Your task to perform on an android device: Go to accessibility settings Image 0: 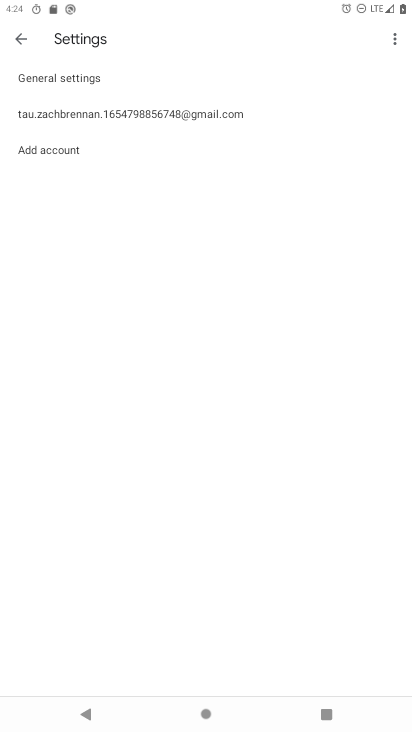
Step 0: press home button
Your task to perform on an android device: Go to accessibility settings Image 1: 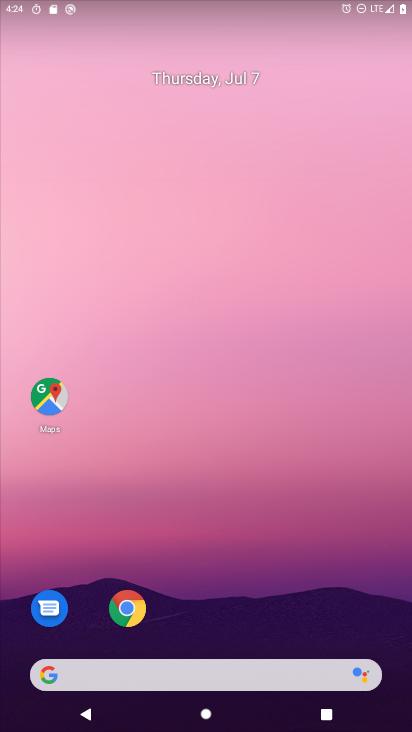
Step 1: drag from (239, 601) to (217, 117)
Your task to perform on an android device: Go to accessibility settings Image 2: 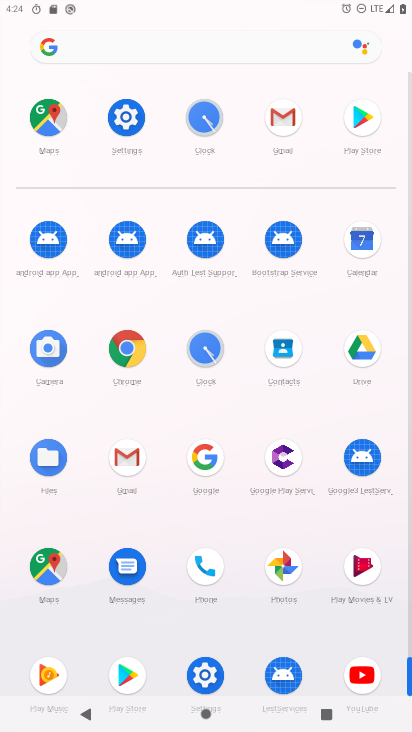
Step 2: click (121, 116)
Your task to perform on an android device: Go to accessibility settings Image 3: 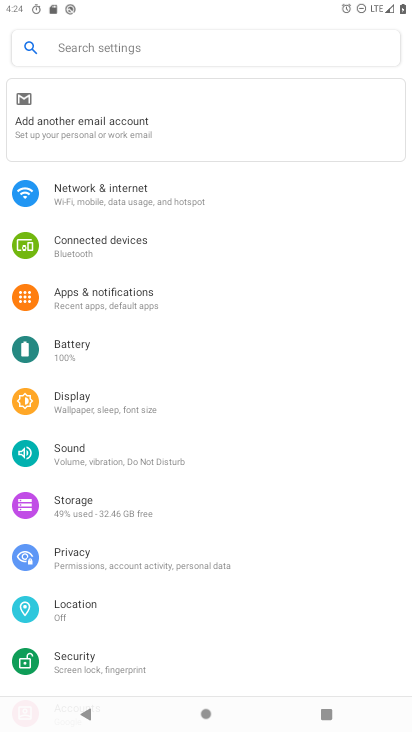
Step 3: drag from (118, 642) to (125, 290)
Your task to perform on an android device: Go to accessibility settings Image 4: 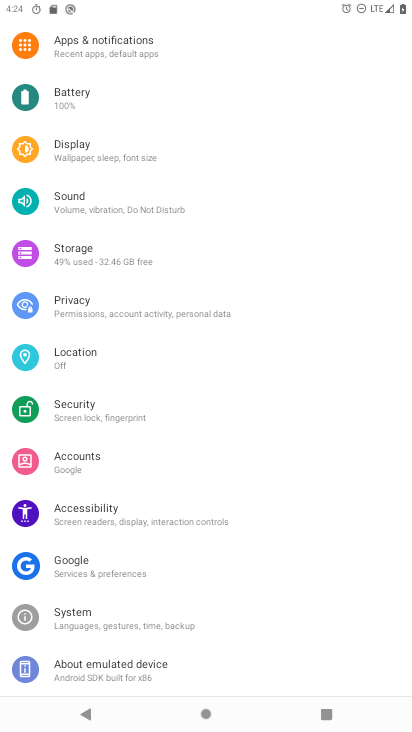
Step 4: click (102, 518)
Your task to perform on an android device: Go to accessibility settings Image 5: 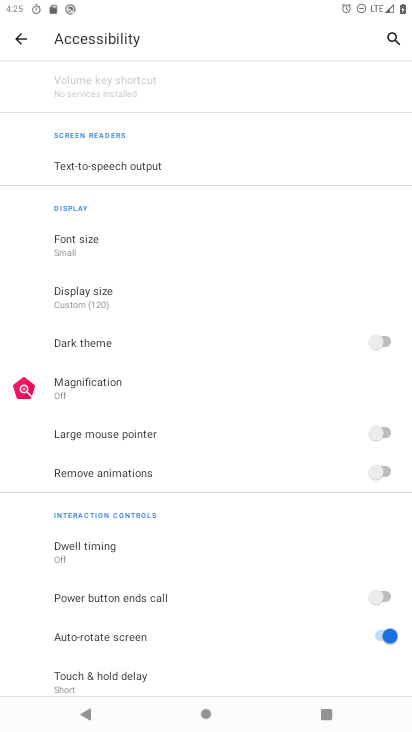
Step 5: task complete